Your task to perform on an android device: turn off location Image 0: 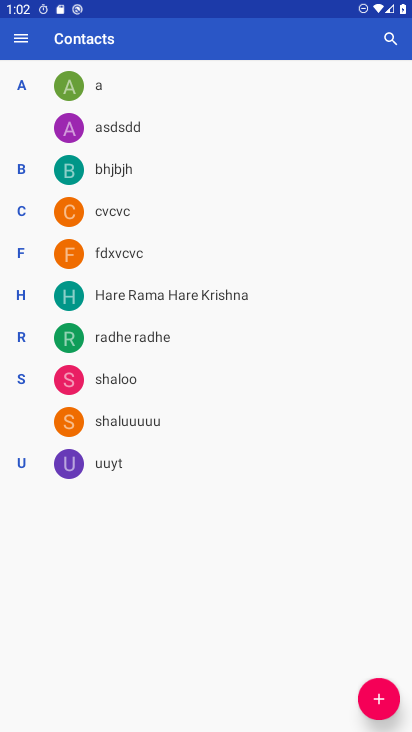
Step 0: press home button
Your task to perform on an android device: turn off location Image 1: 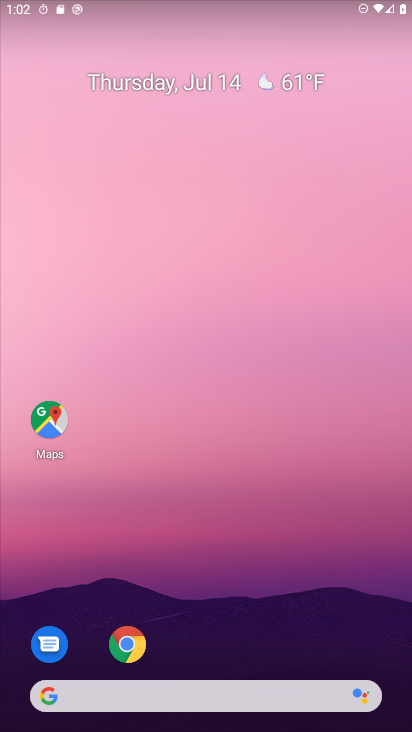
Step 1: drag from (302, 554) to (284, 35)
Your task to perform on an android device: turn off location Image 2: 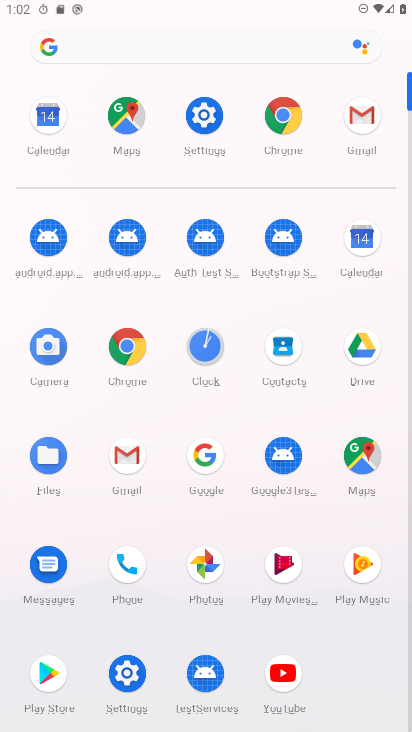
Step 2: click (205, 123)
Your task to perform on an android device: turn off location Image 3: 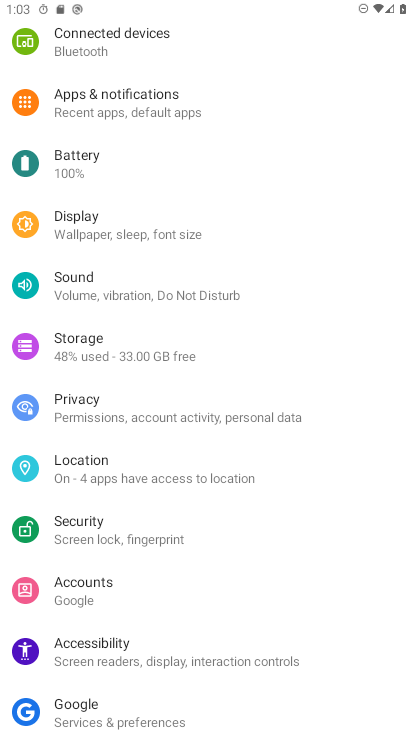
Step 3: click (101, 474)
Your task to perform on an android device: turn off location Image 4: 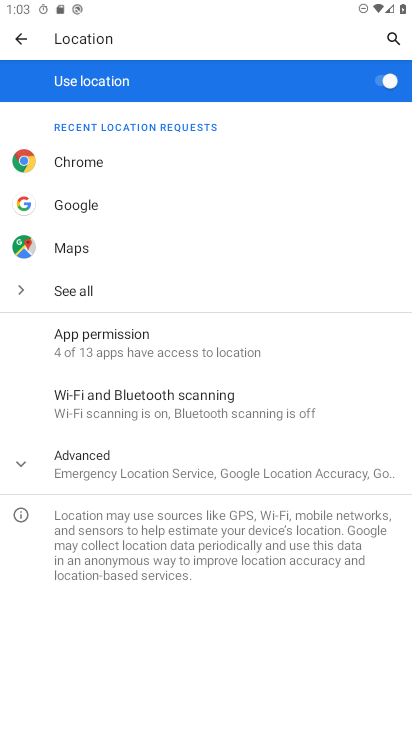
Step 4: click (136, 459)
Your task to perform on an android device: turn off location Image 5: 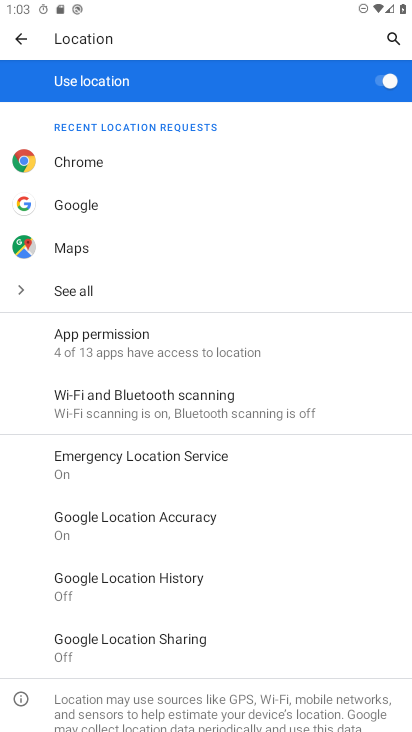
Step 5: click (178, 586)
Your task to perform on an android device: turn off location Image 6: 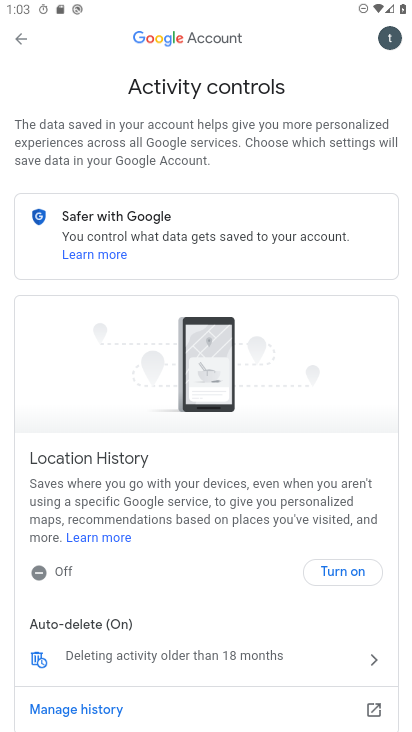
Step 6: task complete